Your task to perform on an android device: Go to Google maps Image 0: 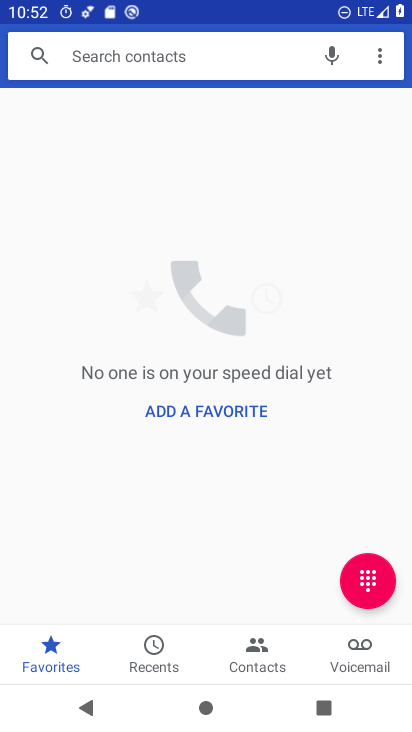
Step 0: press home button
Your task to perform on an android device: Go to Google maps Image 1: 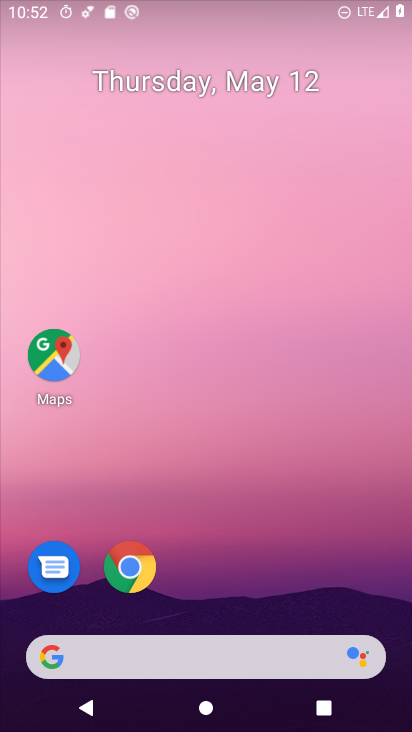
Step 1: drag from (239, 591) to (252, 175)
Your task to perform on an android device: Go to Google maps Image 2: 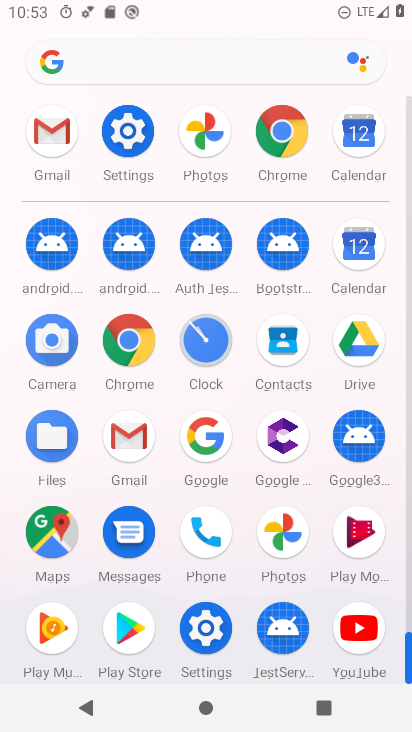
Step 2: click (62, 553)
Your task to perform on an android device: Go to Google maps Image 3: 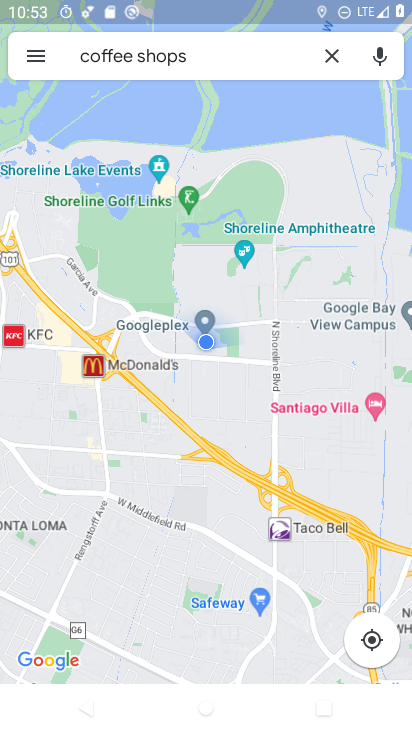
Step 3: task complete